Your task to perform on an android device: create a new album in the google photos Image 0: 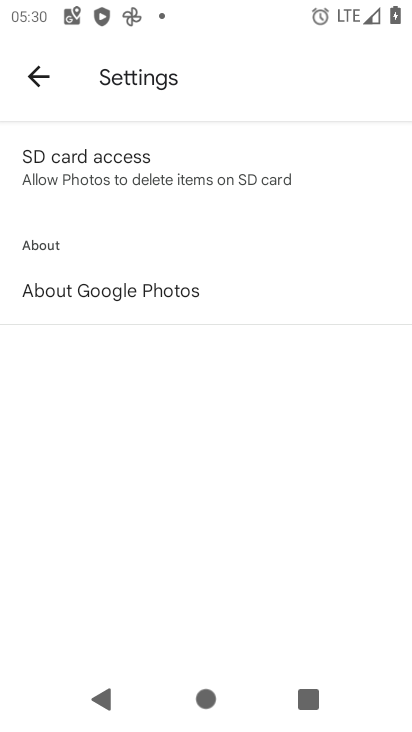
Step 0: press home button
Your task to perform on an android device: create a new album in the google photos Image 1: 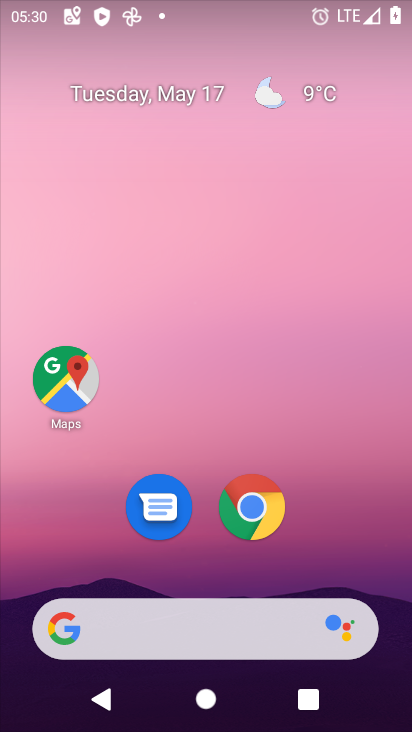
Step 1: drag from (350, 569) to (253, 93)
Your task to perform on an android device: create a new album in the google photos Image 2: 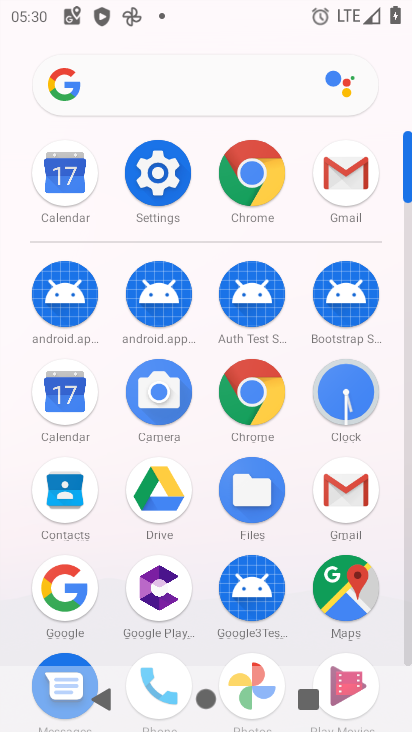
Step 2: drag from (302, 646) to (259, 316)
Your task to perform on an android device: create a new album in the google photos Image 3: 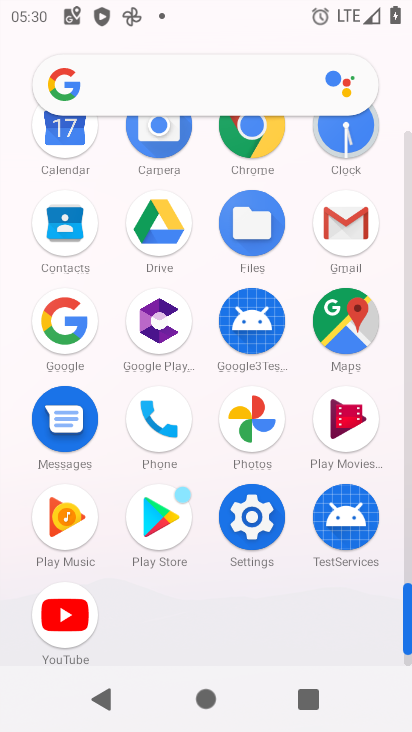
Step 3: click (248, 407)
Your task to perform on an android device: create a new album in the google photos Image 4: 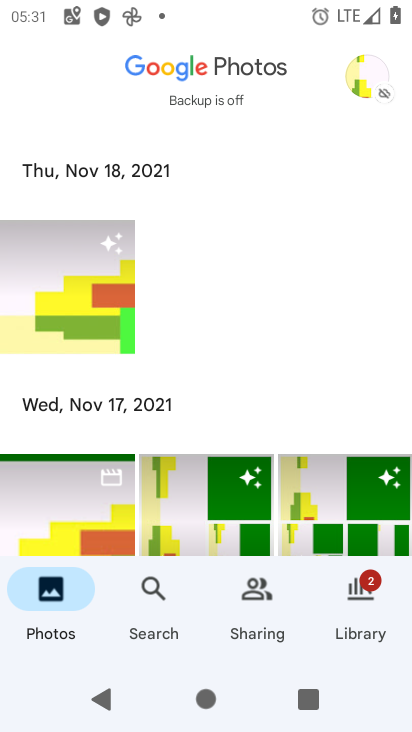
Step 4: click (368, 603)
Your task to perform on an android device: create a new album in the google photos Image 5: 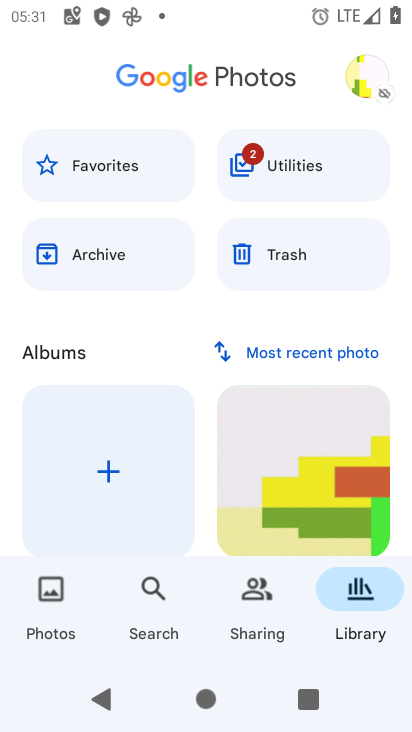
Step 5: click (107, 464)
Your task to perform on an android device: create a new album in the google photos Image 6: 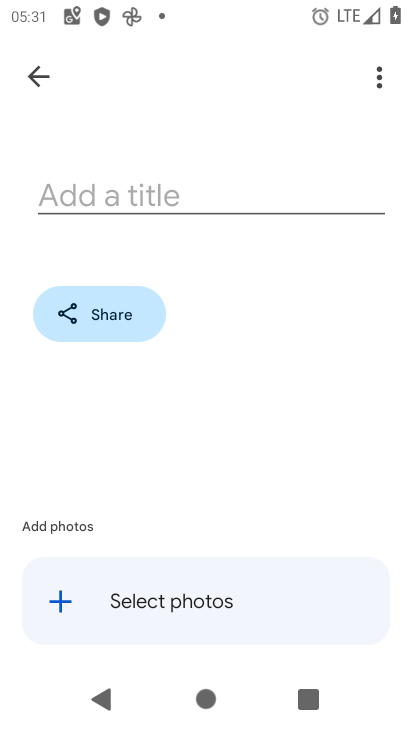
Step 6: click (133, 180)
Your task to perform on an android device: create a new album in the google photos Image 7: 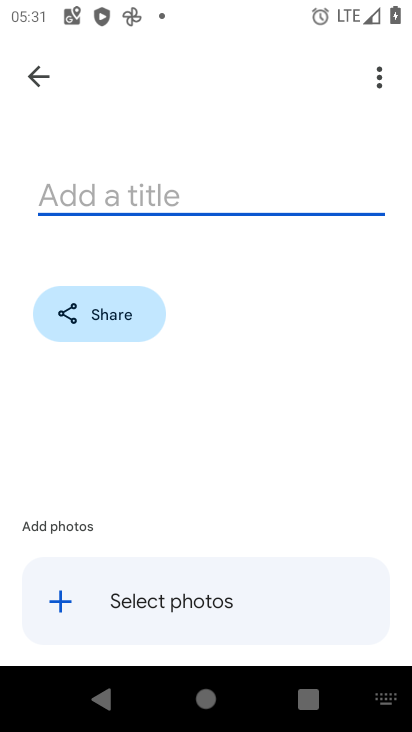
Step 7: type "fgsdfgs"
Your task to perform on an android device: create a new album in the google photos Image 8: 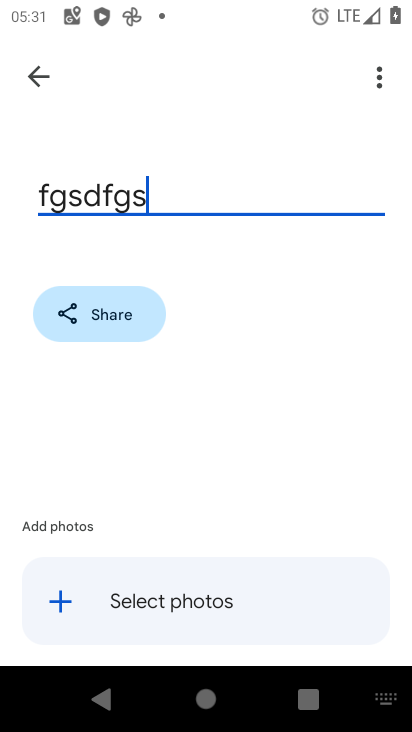
Step 8: type ""
Your task to perform on an android device: create a new album in the google photos Image 9: 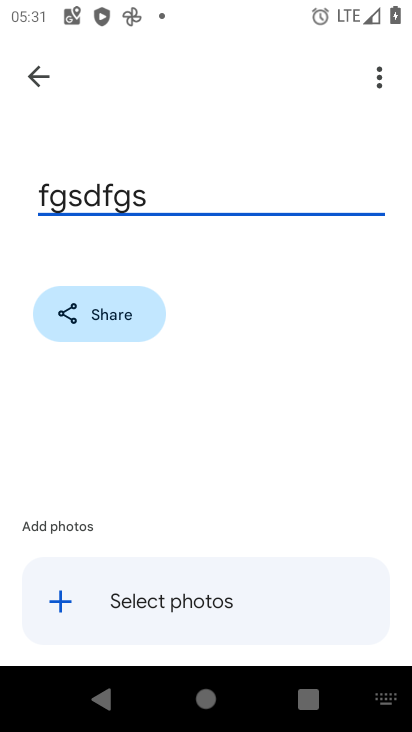
Step 9: click (152, 583)
Your task to perform on an android device: create a new album in the google photos Image 10: 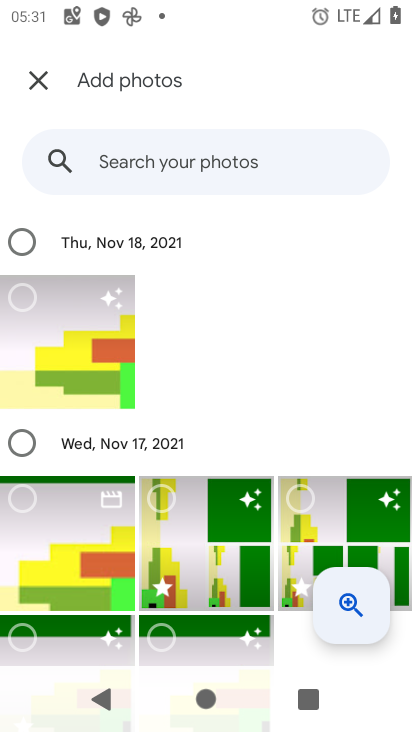
Step 10: click (95, 360)
Your task to perform on an android device: create a new album in the google photos Image 11: 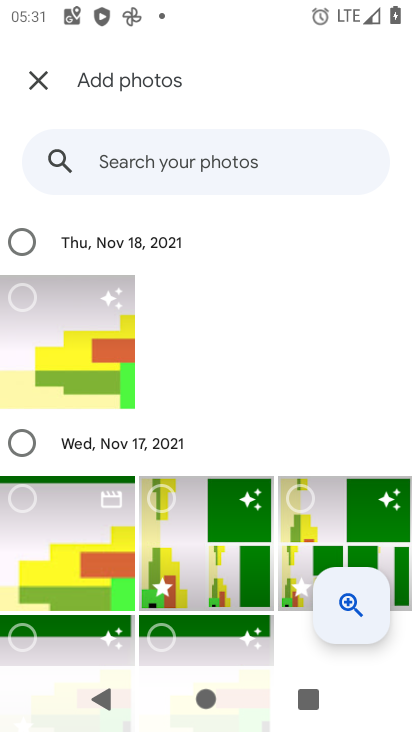
Step 11: click (212, 540)
Your task to perform on an android device: create a new album in the google photos Image 12: 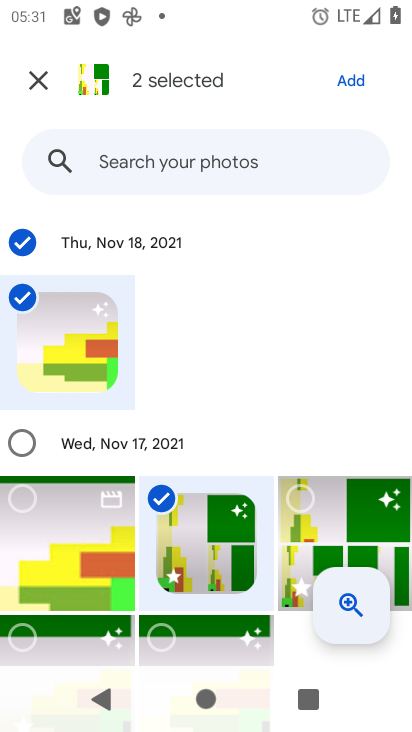
Step 12: click (346, 84)
Your task to perform on an android device: create a new album in the google photos Image 13: 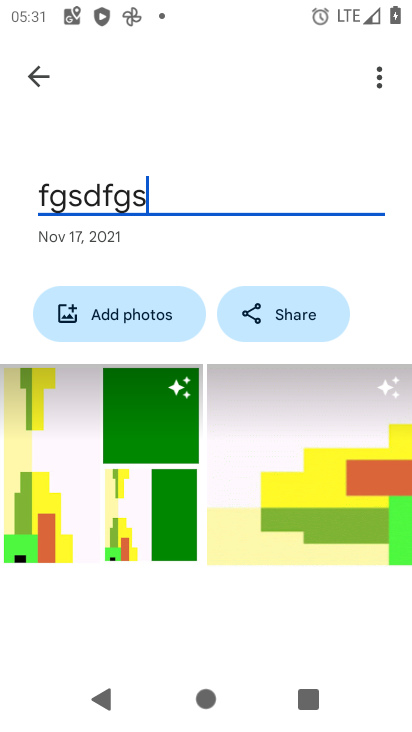
Step 13: task complete